Your task to perform on an android device: add a contact in the contacts app Image 0: 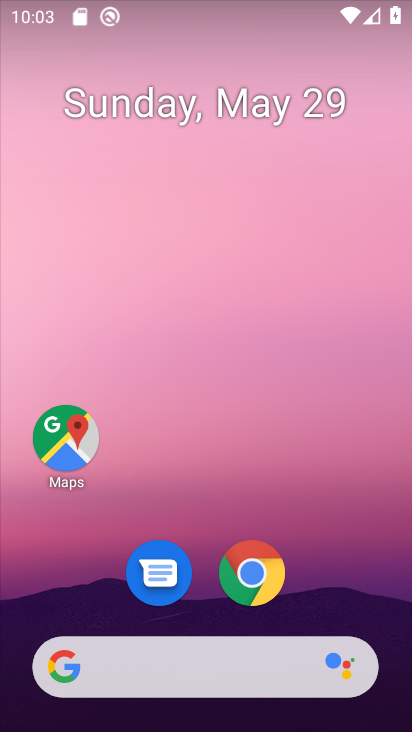
Step 0: drag from (90, 634) to (178, 79)
Your task to perform on an android device: add a contact in the contacts app Image 1: 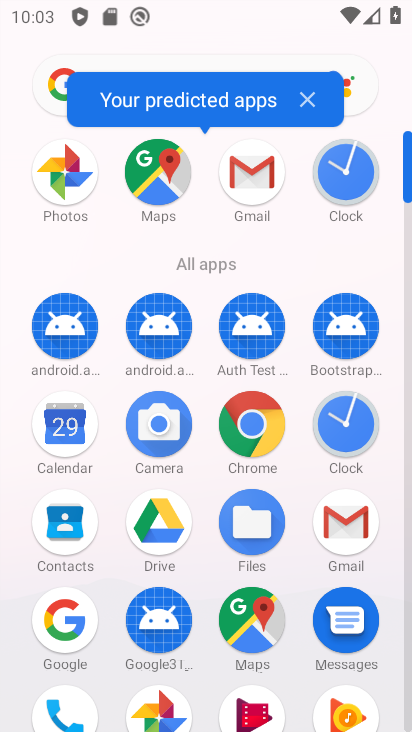
Step 1: drag from (99, 690) to (138, 479)
Your task to perform on an android device: add a contact in the contacts app Image 2: 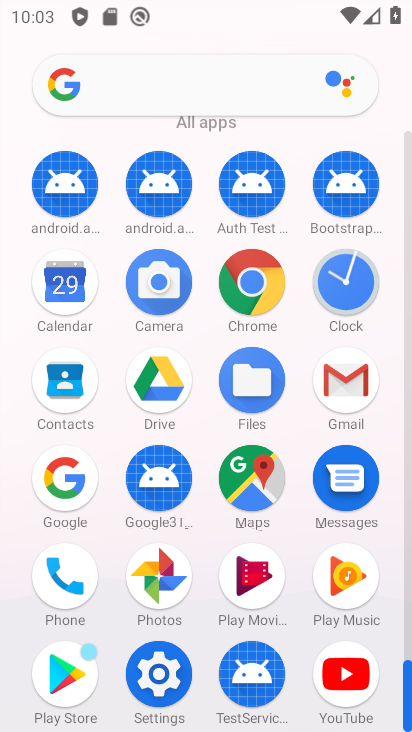
Step 2: click (75, 381)
Your task to perform on an android device: add a contact in the contacts app Image 3: 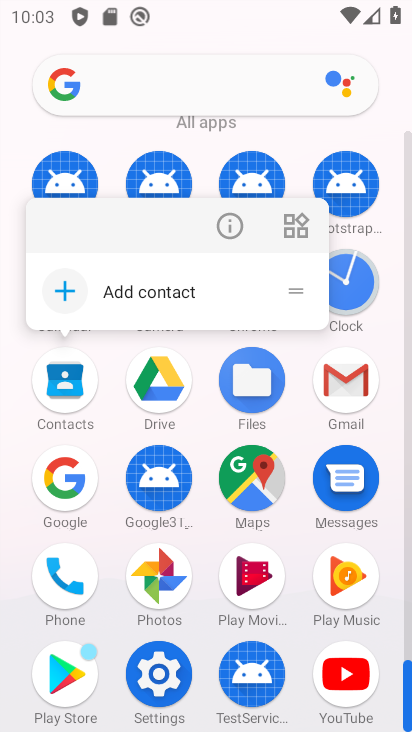
Step 3: click (65, 401)
Your task to perform on an android device: add a contact in the contacts app Image 4: 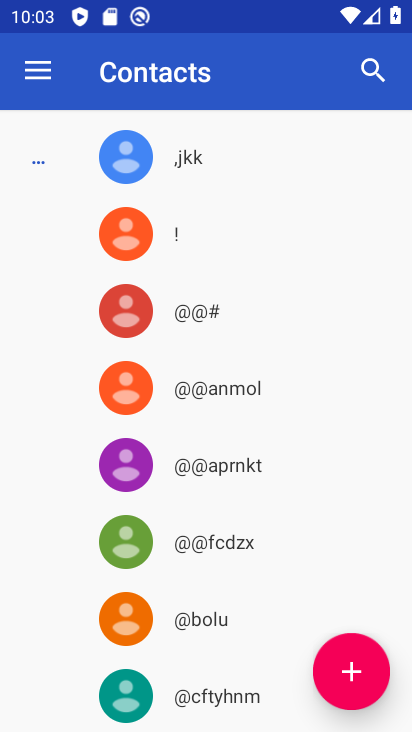
Step 4: click (362, 646)
Your task to perform on an android device: add a contact in the contacts app Image 5: 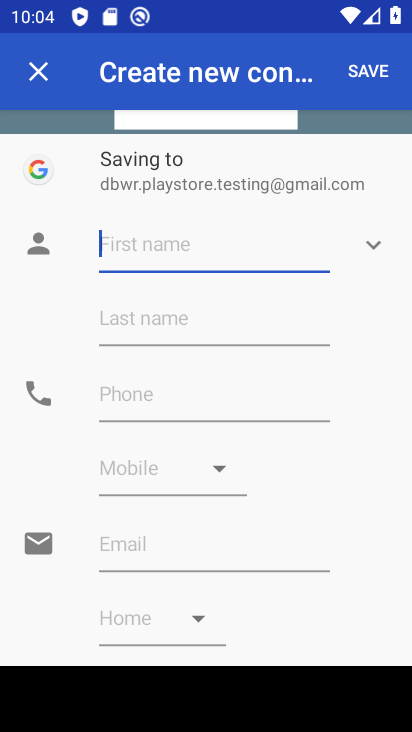
Step 5: type "yooo"
Your task to perform on an android device: add a contact in the contacts app Image 6: 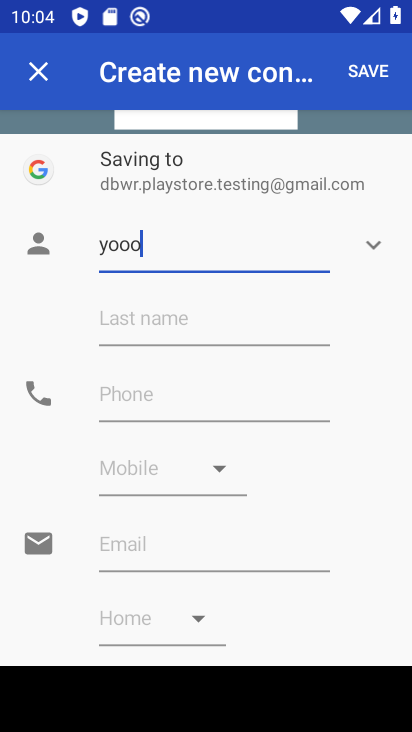
Step 6: click (125, 404)
Your task to perform on an android device: add a contact in the contacts app Image 7: 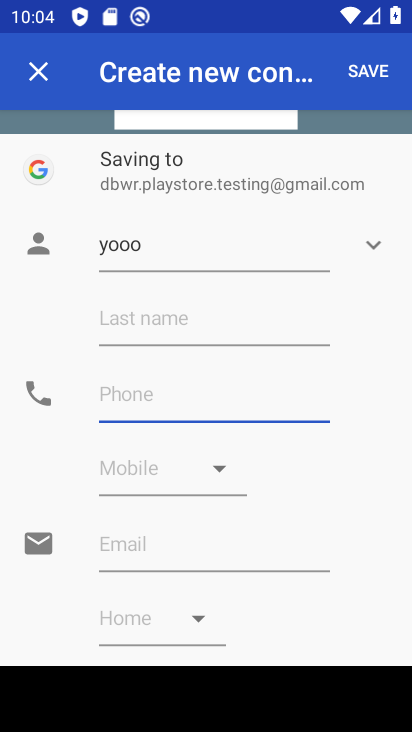
Step 7: type "99999999999999"
Your task to perform on an android device: add a contact in the contacts app Image 8: 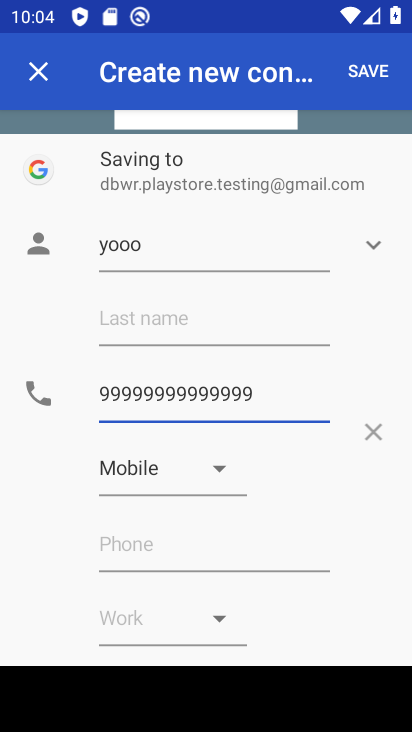
Step 8: click (393, 56)
Your task to perform on an android device: add a contact in the contacts app Image 9: 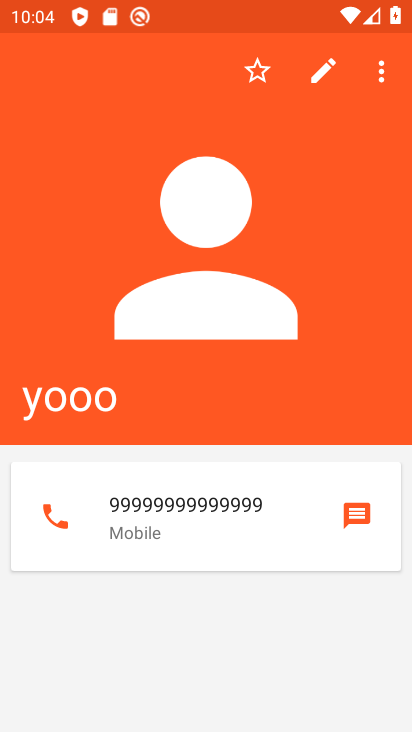
Step 9: task complete